Your task to perform on an android device: Open Google Chrome and open the bookmarks view Image 0: 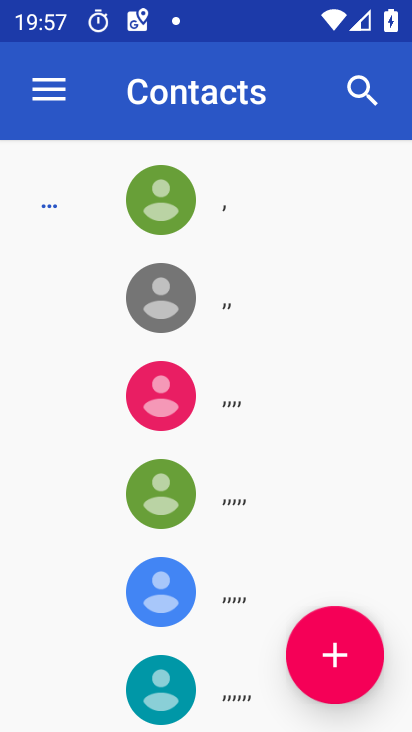
Step 0: press home button
Your task to perform on an android device: Open Google Chrome and open the bookmarks view Image 1: 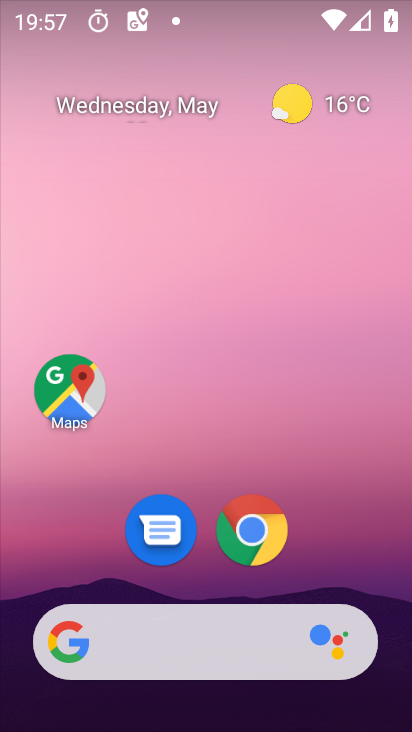
Step 1: click (261, 523)
Your task to perform on an android device: Open Google Chrome and open the bookmarks view Image 2: 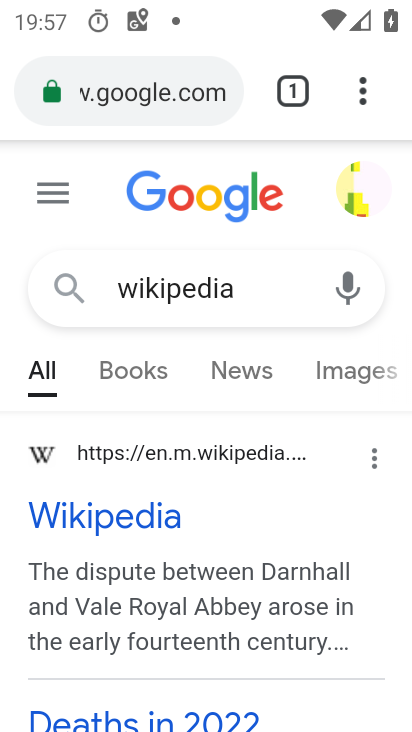
Step 2: click (364, 95)
Your task to perform on an android device: Open Google Chrome and open the bookmarks view Image 3: 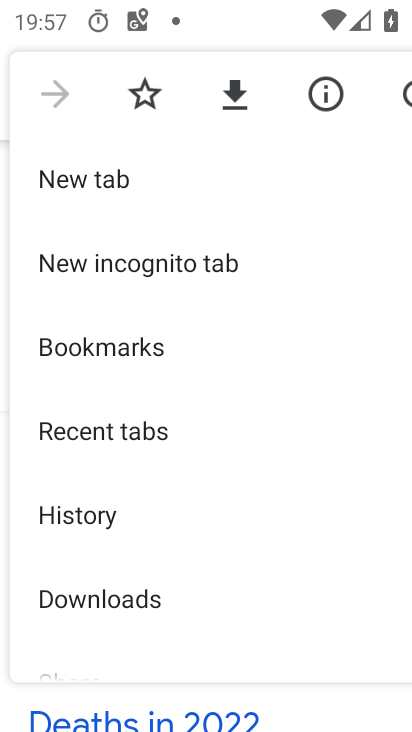
Step 3: click (140, 357)
Your task to perform on an android device: Open Google Chrome and open the bookmarks view Image 4: 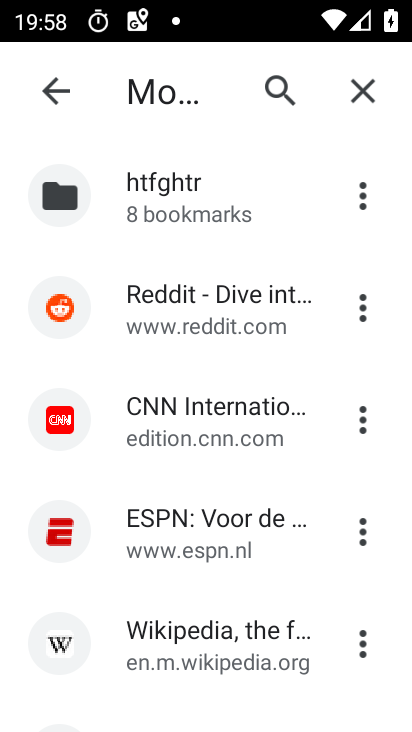
Step 4: task complete